Your task to perform on an android device: check storage Image 0: 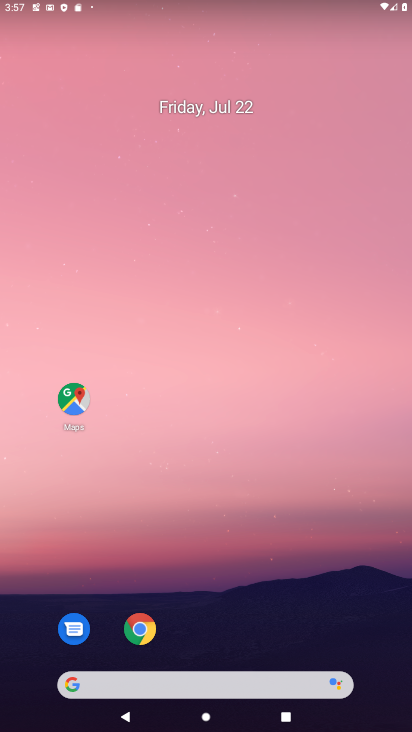
Step 0: drag from (334, 620) to (300, 85)
Your task to perform on an android device: check storage Image 1: 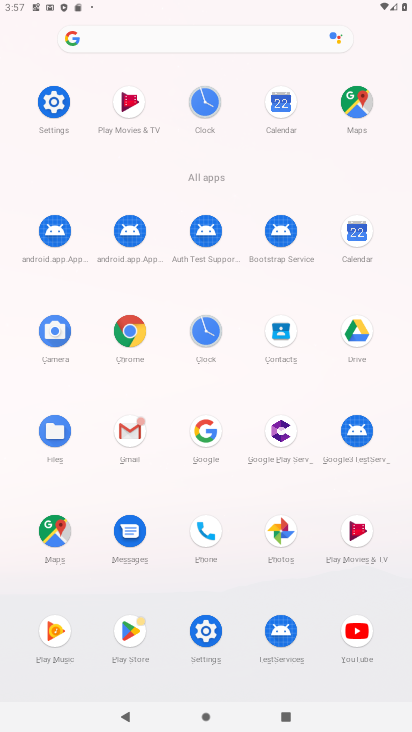
Step 1: click (200, 630)
Your task to perform on an android device: check storage Image 2: 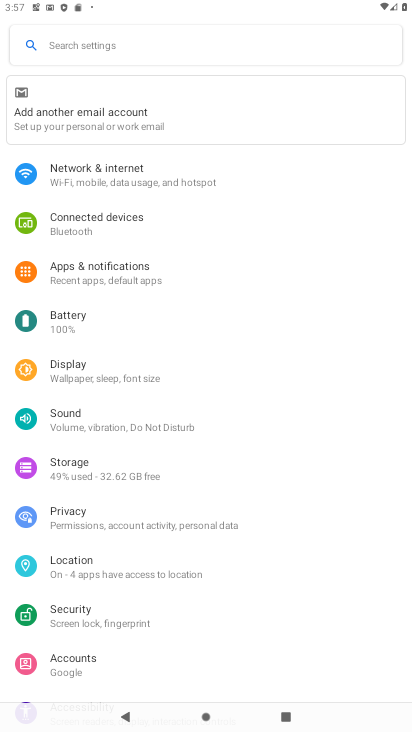
Step 2: click (156, 479)
Your task to perform on an android device: check storage Image 3: 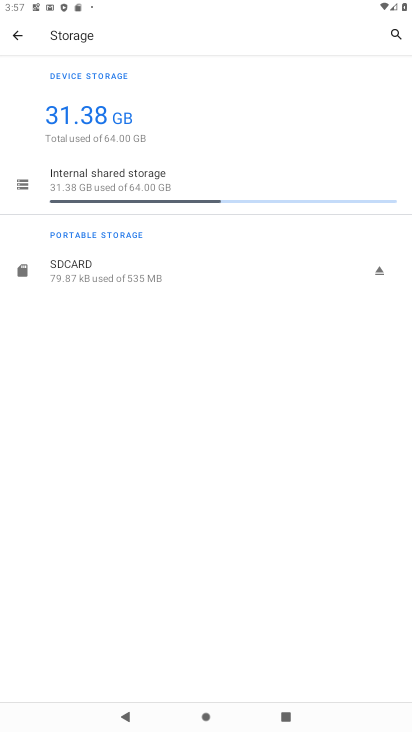
Step 3: task complete